Your task to perform on an android device: Go to location settings Image 0: 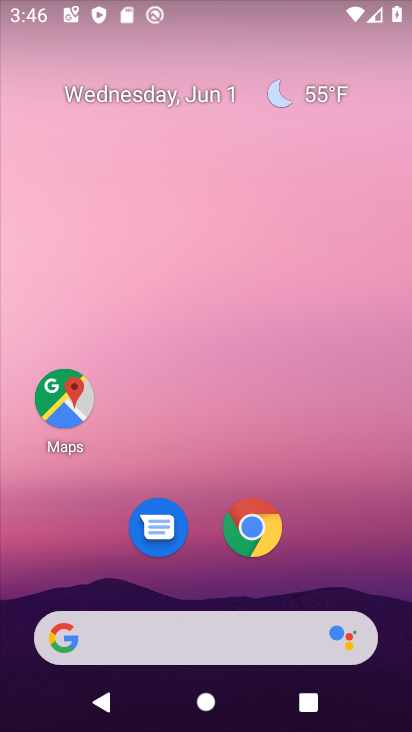
Step 0: press home button
Your task to perform on an android device: Go to location settings Image 1: 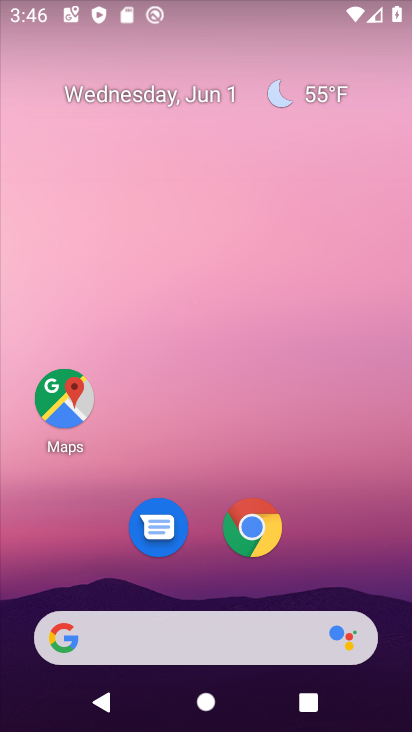
Step 1: drag from (378, 545) to (314, 97)
Your task to perform on an android device: Go to location settings Image 2: 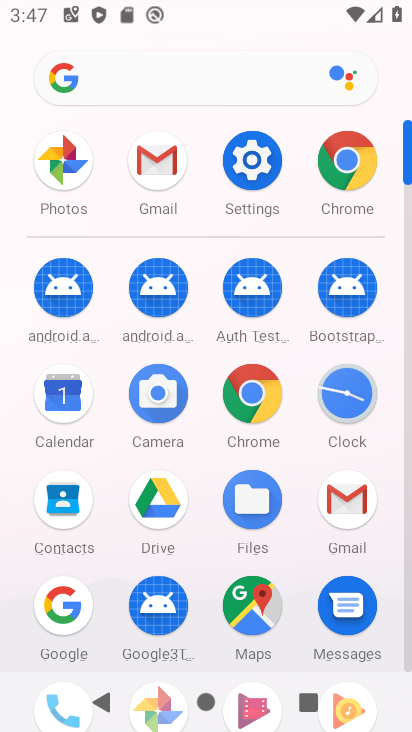
Step 2: click (252, 170)
Your task to perform on an android device: Go to location settings Image 3: 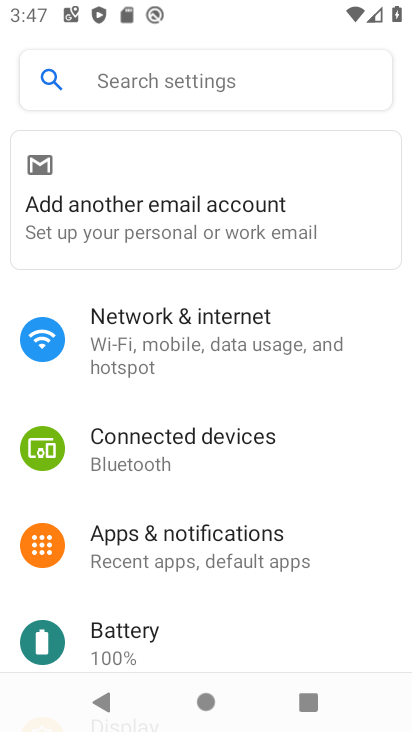
Step 3: drag from (231, 578) to (241, 198)
Your task to perform on an android device: Go to location settings Image 4: 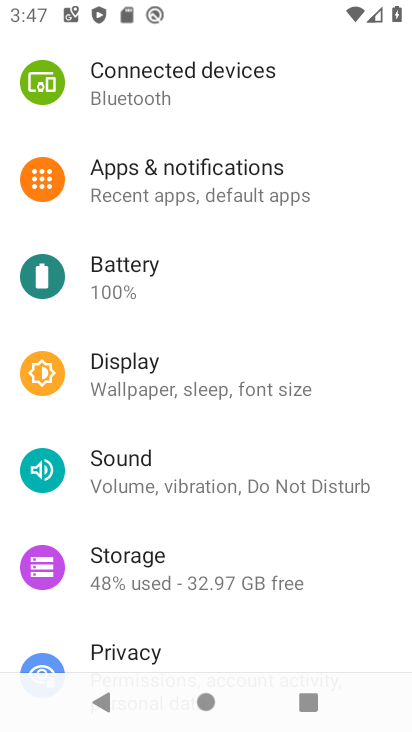
Step 4: drag from (293, 570) to (222, 304)
Your task to perform on an android device: Go to location settings Image 5: 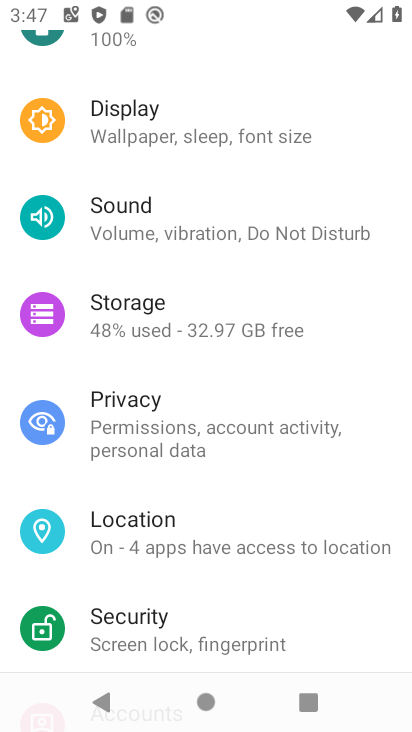
Step 5: click (173, 539)
Your task to perform on an android device: Go to location settings Image 6: 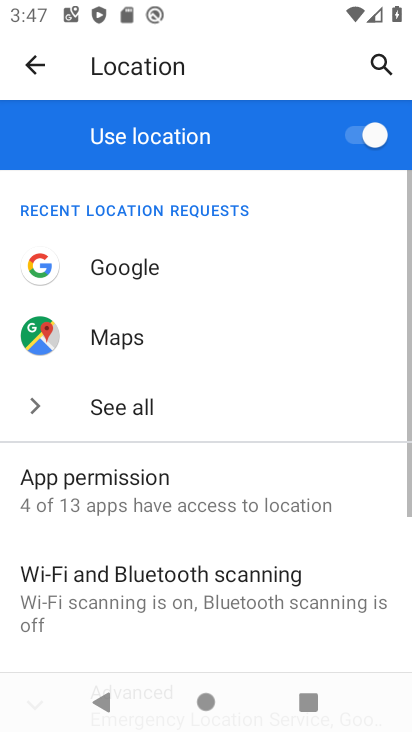
Step 6: task complete